Your task to perform on an android device: turn off data saver in the chrome app Image 0: 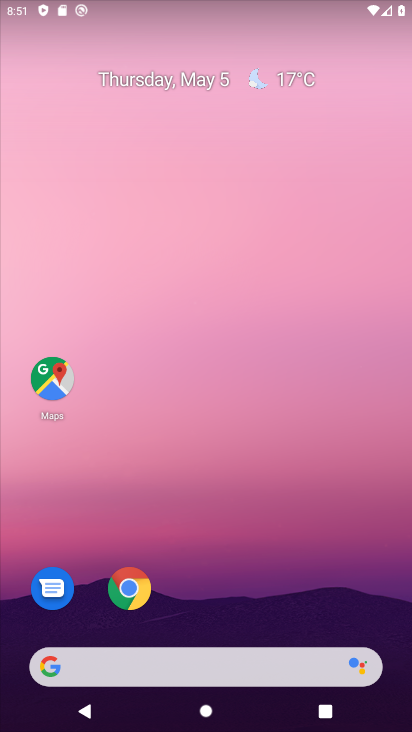
Step 0: drag from (255, 600) to (318, 254)
Your task to perform on an android device: turn off data saver in the chrome app Image 1: 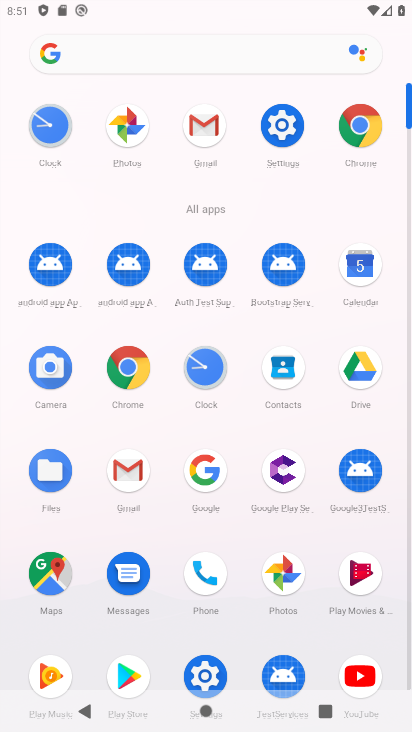
Step 1: click (130, 372)
Your task to perform on an android device: turn off data saver in the chrome app Image 2: 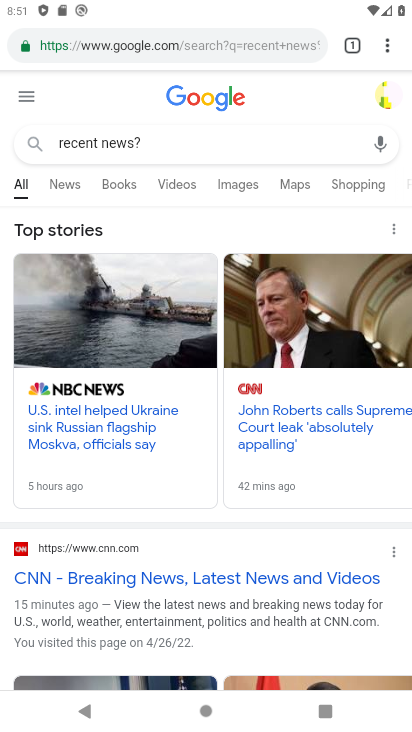
Step 2: click (368, 41)
Your task to perform on an android device: turn off data saver in the chrome app Image 3: 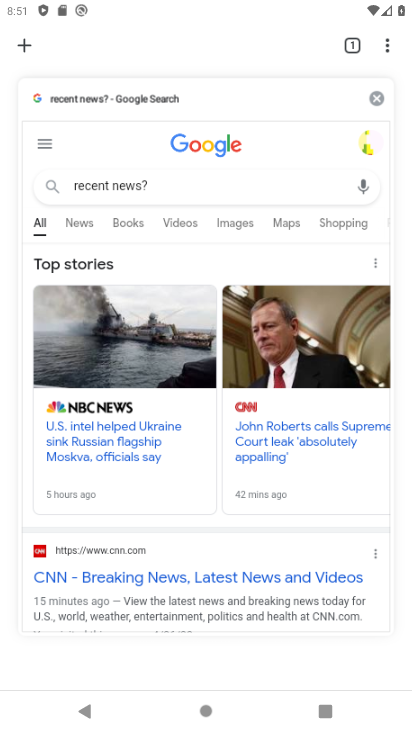
Step 3: click (377, 52)
Your task to perform on an android device: turn off data saver in the chrome app Image 4: 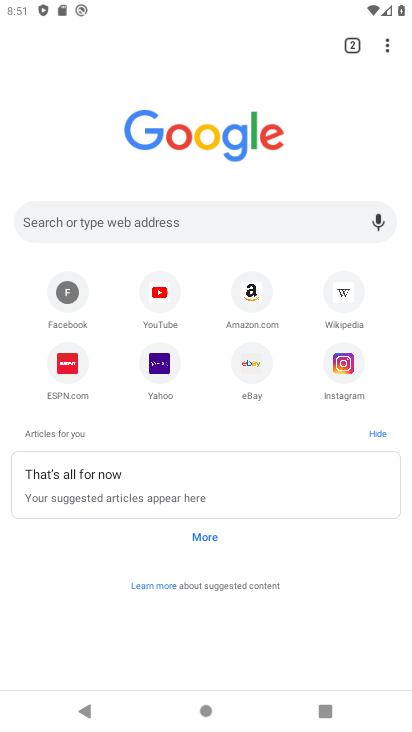
Step 4: click (387, 35)
Your task to perform on an android device: turn off data saver in the chrome app Image 5: 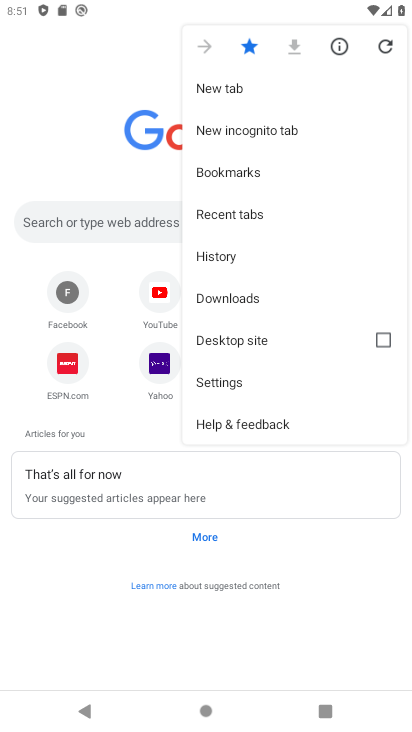
Step 5: click (256, 385)
Your task to perform on an android device: turn off data saver in the chrome app Image 6: 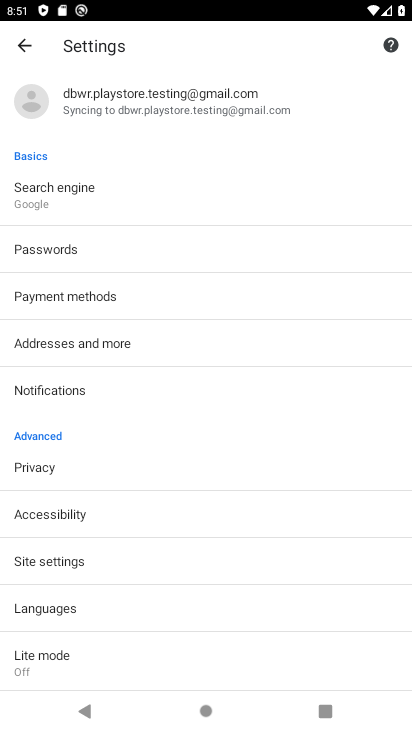
Step 6: click (74, 655)
Your task to perform on an android device: turn off data saver in the chrome app Image 7: 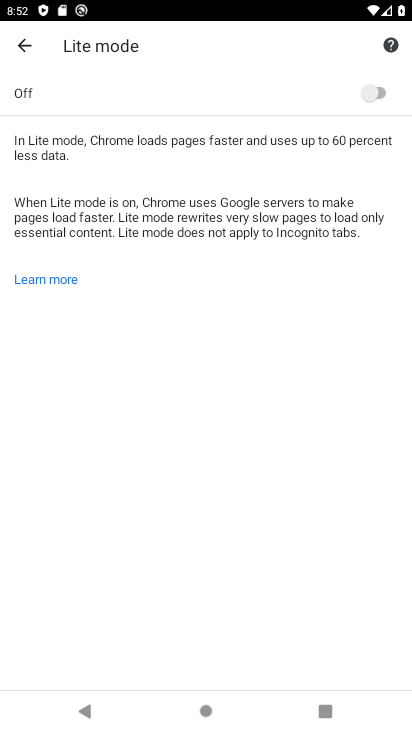
Step 7: task complete